Your task to perform on an android device: check the backup settings in the google photos Image 0: 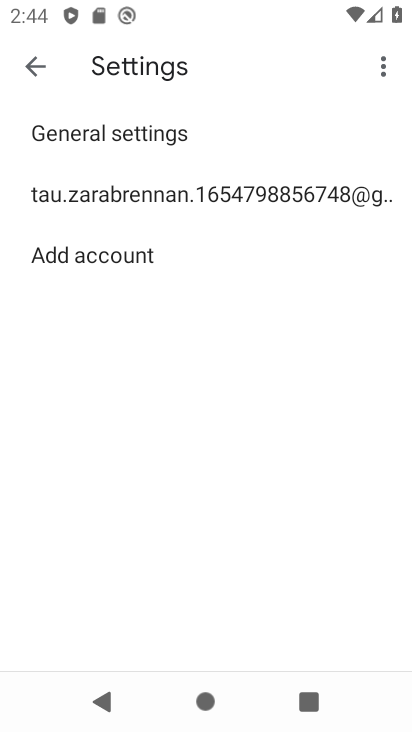
Step 0: press home button
Your task to perform on an android device: check the backup settings in the google photos Image 1: 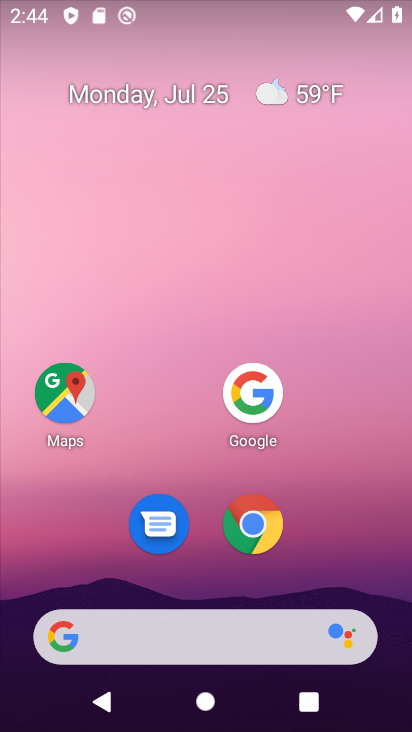
Step 1: drag from (205, 643) to (339, 167)
Your task to perform on an android device: check the backup settings in the google photos Image 2: 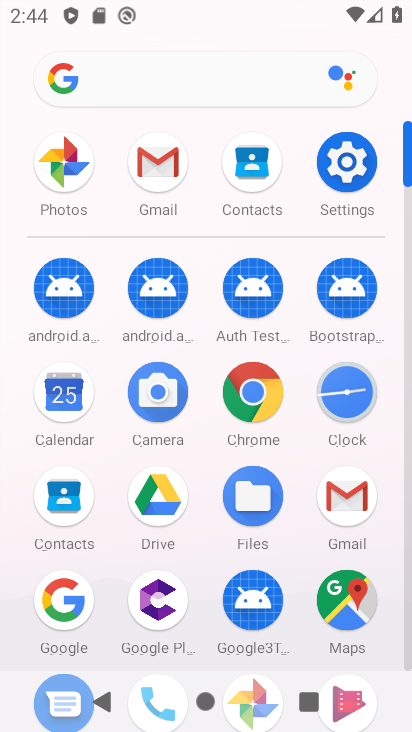
Step 2: click (66, 169)
Your task to perform on an android device: check the backup settings in the google photos Image 3: 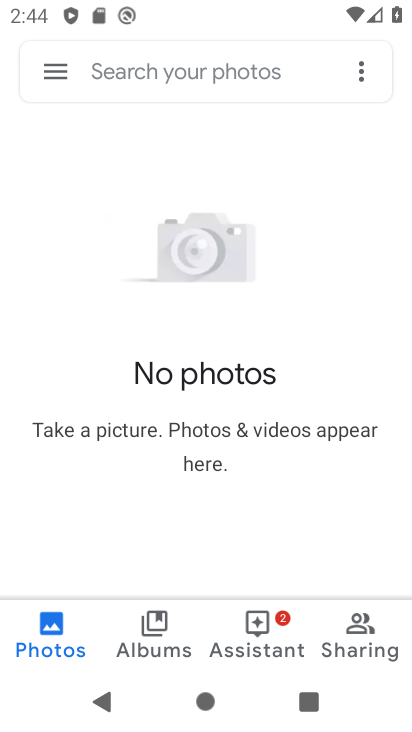
Step 3: click (51, 64)
Your task to perform on an android device: check the backup settings in the google photos Image 4: 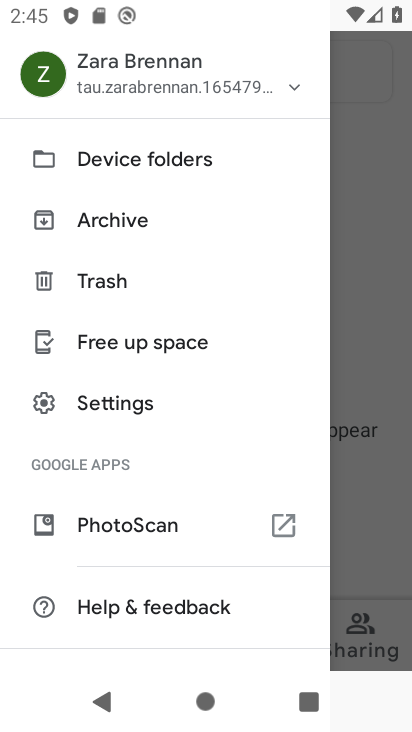
Step 4: click (114, 399)
Your task to perform on an android device: check the backup settings in the google photos Image 5: 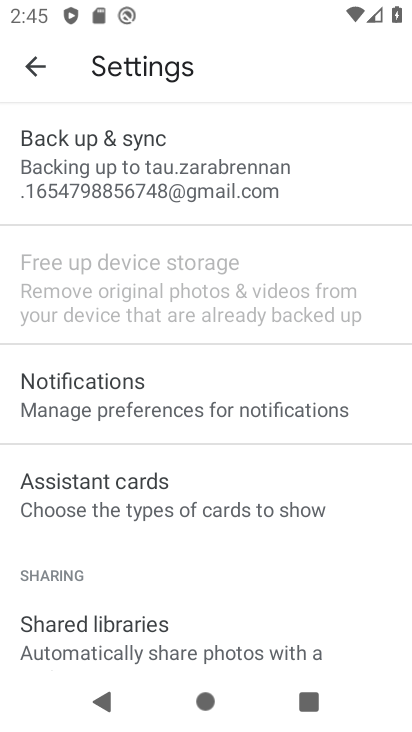
Step 5: click (234, 199)
Your task to perform on an android device: check the backup settings in the google photos Image 6: 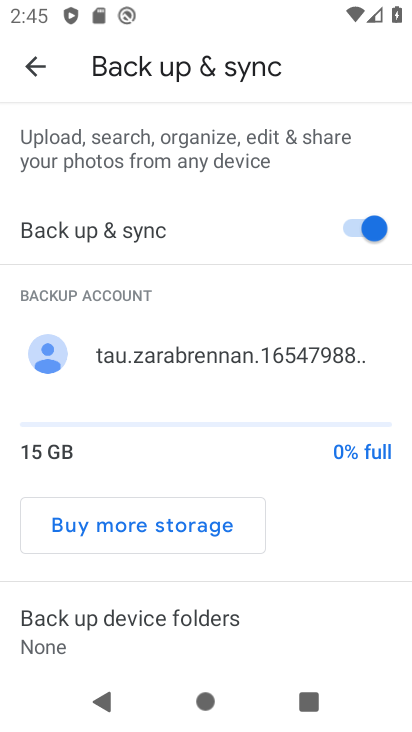
Step 6: task complete